Your task to perform on an android device: Go to Android settings Image 0: 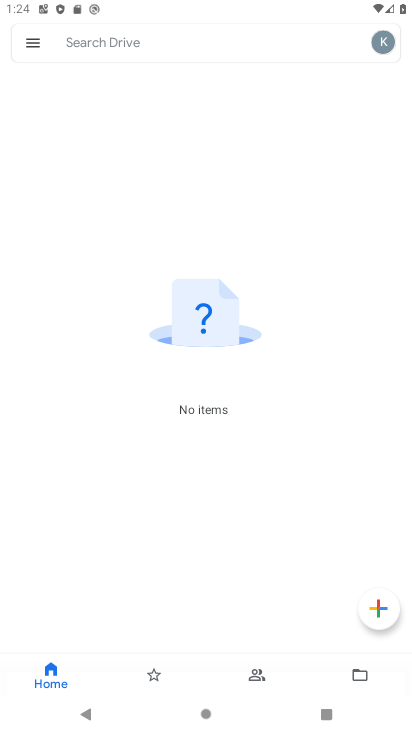
Step 0: press home button
Your task to perform on an android device: Go to Android settings Image 1: 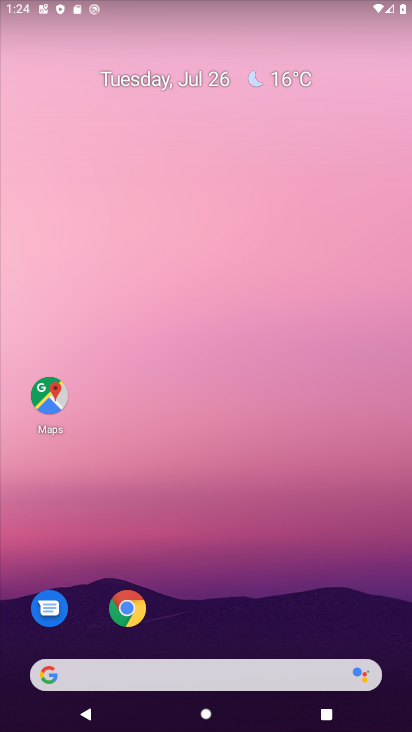
Step 1: drag from (248, 215) to (10, 195)
Your task to perform on an android device: Go to Android settings Image 2: 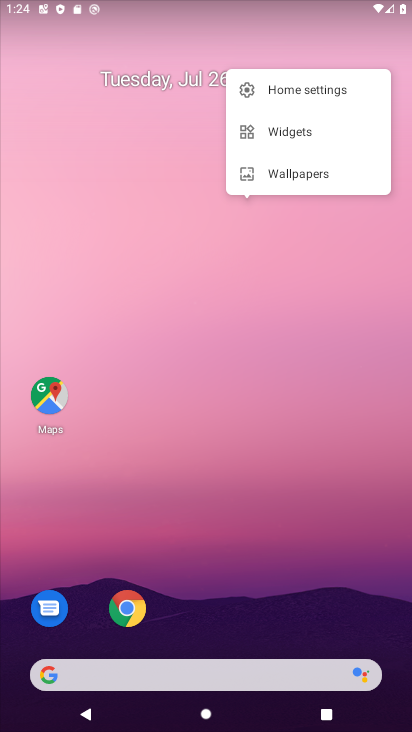
Step 2: drag from (245, 600) to (207, 397)
Your task to perform on an android device: Go to Android settings Image 3: 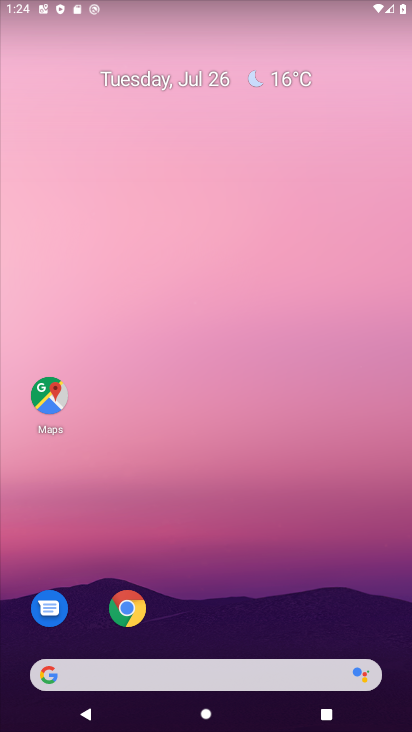
Step 3: drag from (230, 629) to (230, 25)
Your task to perform on an android device: Go to Android settings Image 4: 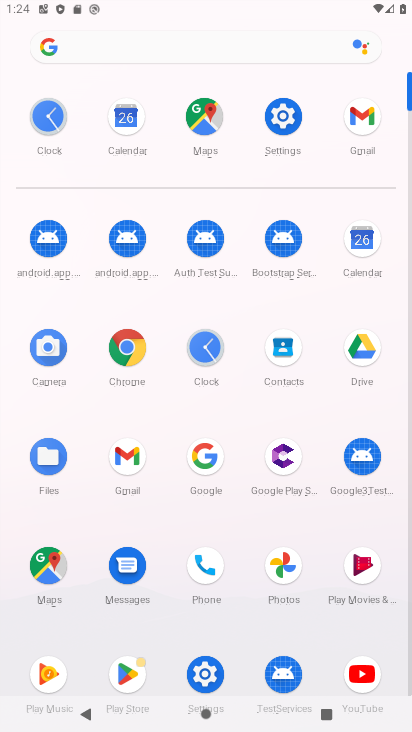
Step 4: click (277, 111)
Your task to perform on an android device: Go to Android settings Image 5: 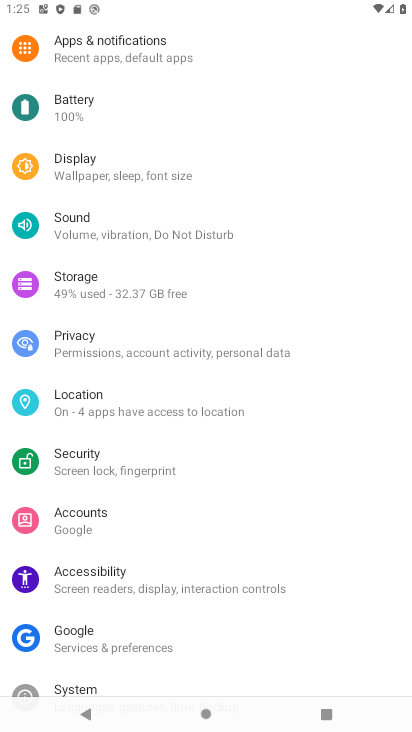
Step 5: task complete